Your task to perform on an android device: turn on location history Image 0: 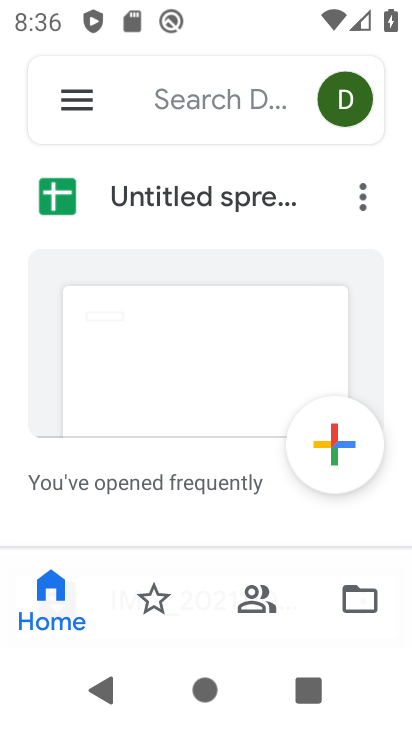
Step 0: press home button
Your task to perform on an android device: turn on location history Image 1: 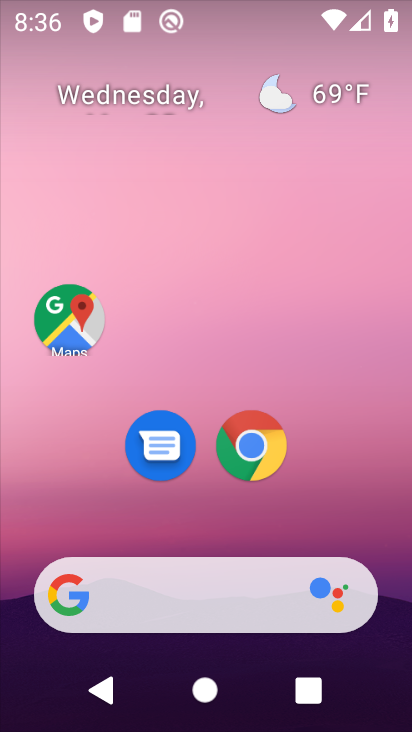
Step 1: drag from (323, 513) to (310, 69)
Your task to perform on an android device: turn on location history Image 2: 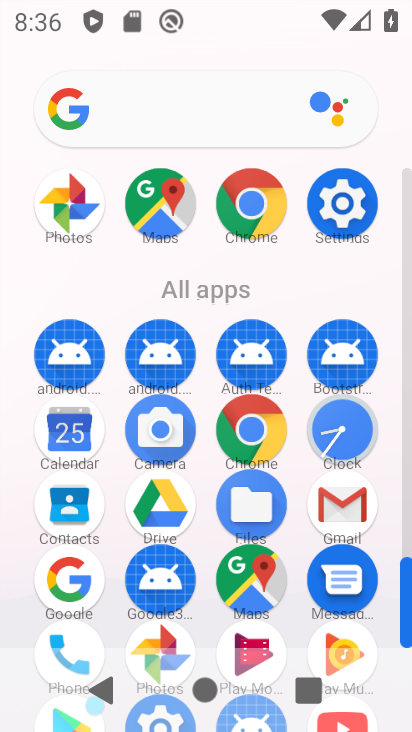
Step 2: drag from (300, 321) to (330, 28)
Your task to perform on an android device: turn on location history Image 3: 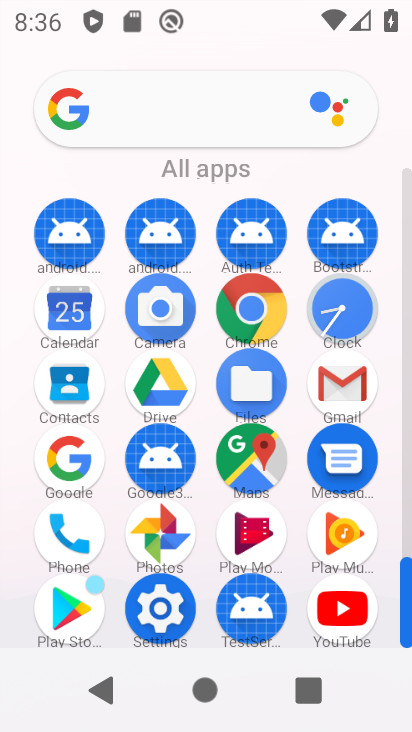
Step 3: click (240, 458)
Your task to perform on an android device: turn on location history Image 4: 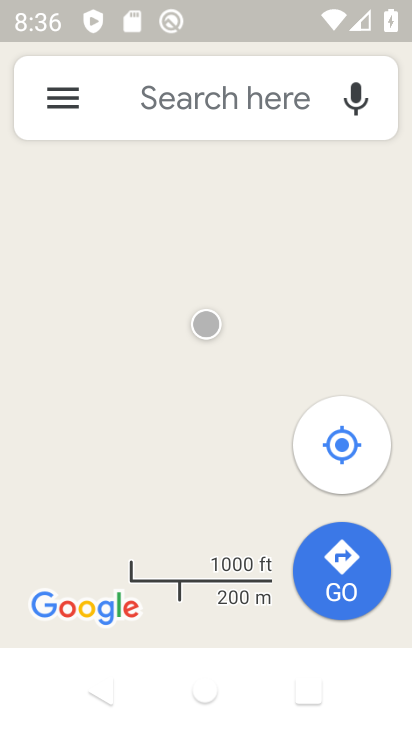
Step 4: click (59, 105)
Your task to perform on an android device: turn on location history Image 5: 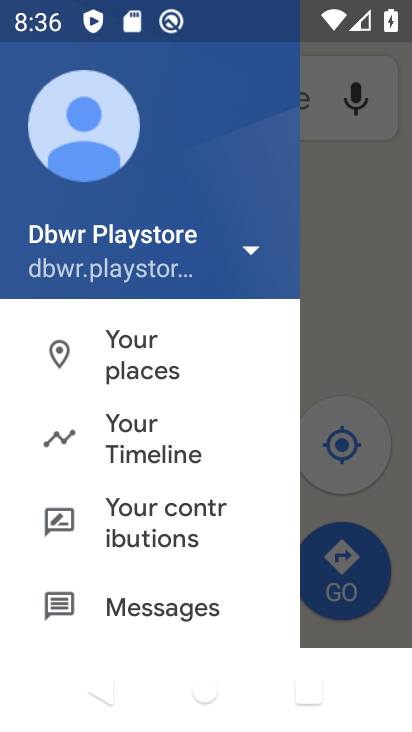
Step 5: click (154, 432)
Your task to perform on an android device: turn on location history Image 6: 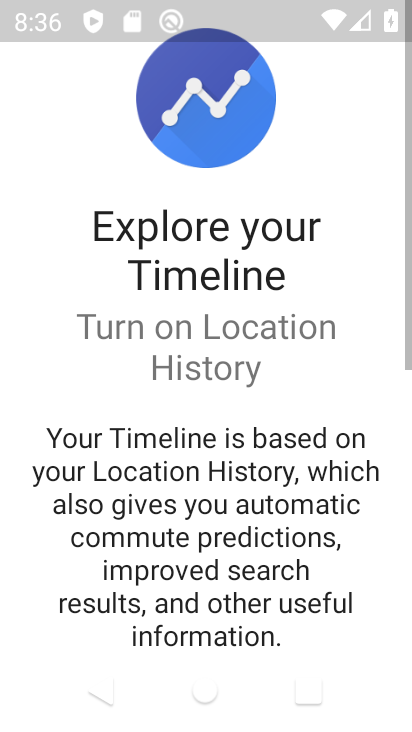
Step 6: drag from (304, 546) to (305, 257)
Your task to perform on an android device: turn on location history Image 7: 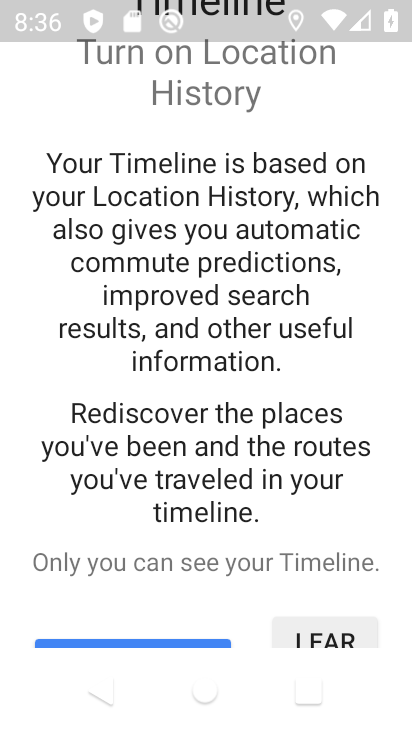
Step 7: drag from (265, 526) to (263, 238)
Your task to perform on an android device: turn on location history Image 8: 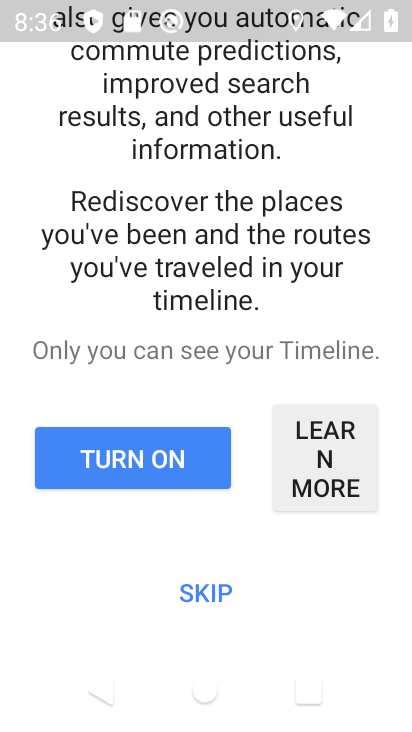
Step 8: click (113, 462)
Your task to perform on an android device: turn on location history Image 9: 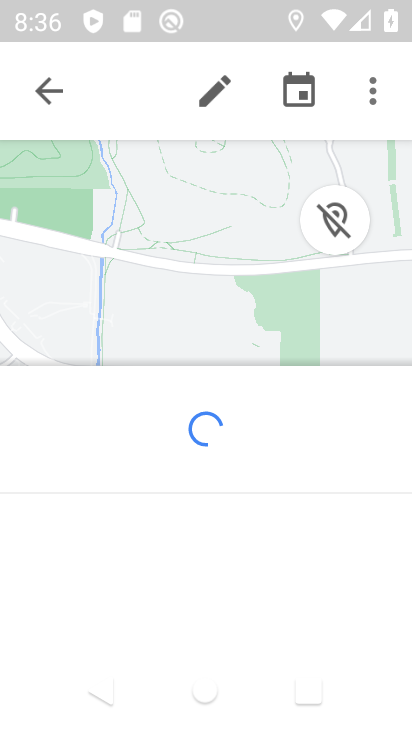
Step 9: click (374, 87)
Your task to perform on an android device: turn on location history Image 10: 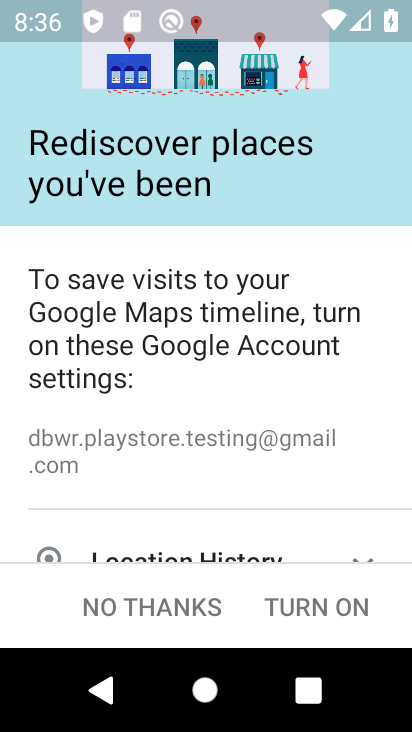
Step 10: click (165, 603)
Your task to perform on an android device: turn on location history Image 11: 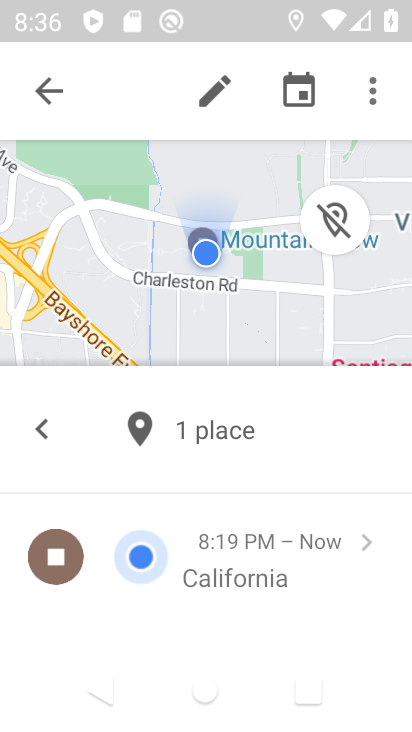
Step 11: click (367, 94)
Your task to perform on an android device: turn on location history Image 12: 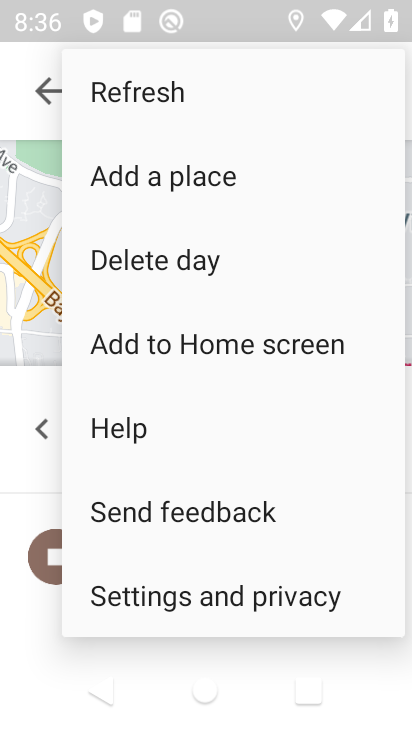
Step 12: click (214, 593)
Your task to perform on an android device: turn on location history Image 13: 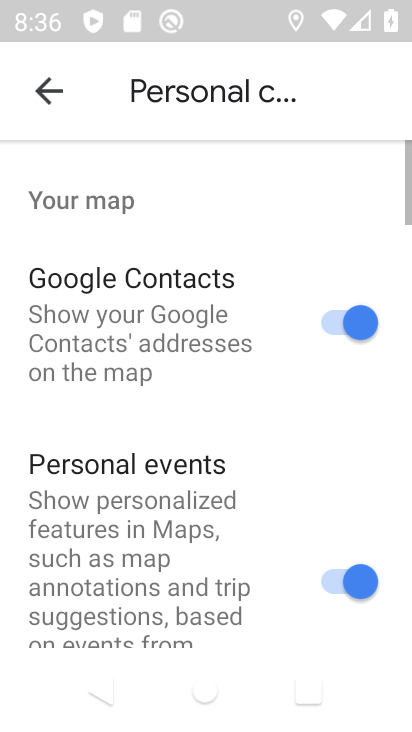
Step 13: drag from (214, 593) to (262, 300)
Your task to perform on an android device: turn on location history Image 14: 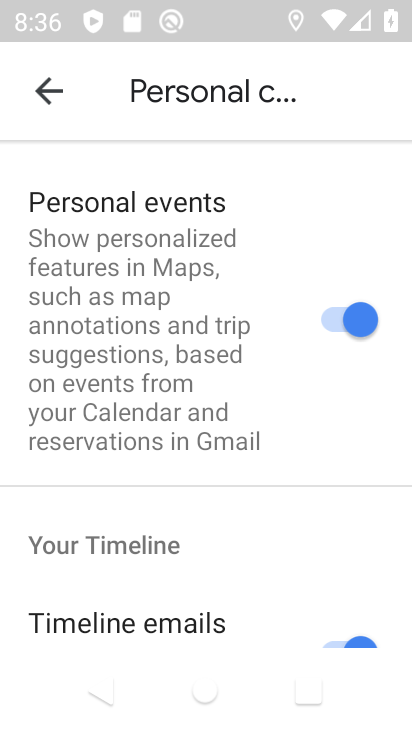
Step 14: drag from (232, 583) to (272, 230)
Your task to perform on an android device: turn on location history Image 15: 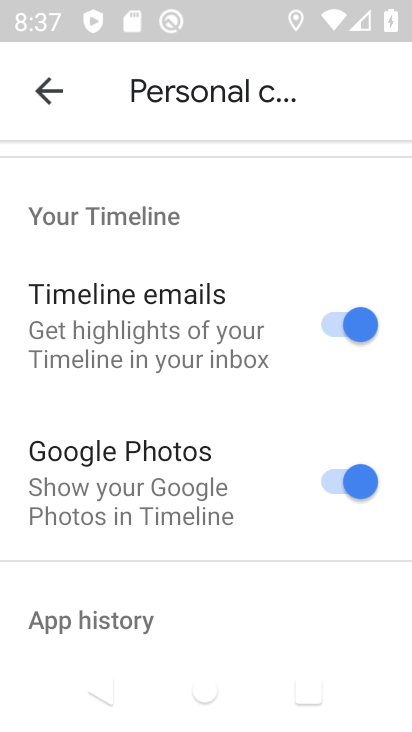
Step 15: drag from (254, 606) to (290, 193)
Your task to perform on an android device: turn on location history Image 16: 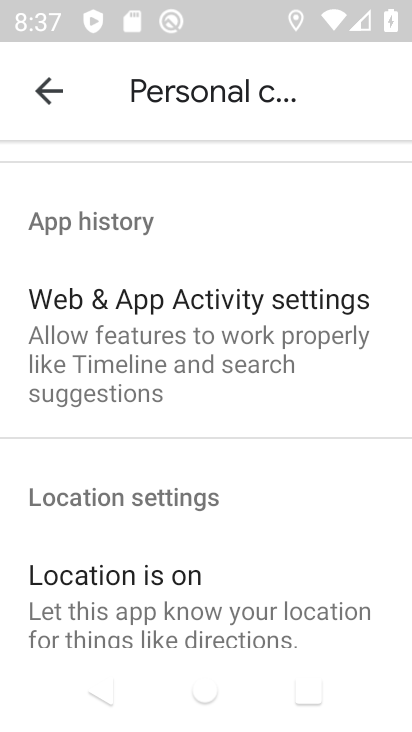
Step 16: drag from (311, 387) to (321, 175)
Your task to perform on an android device: turn on location history Image 17: 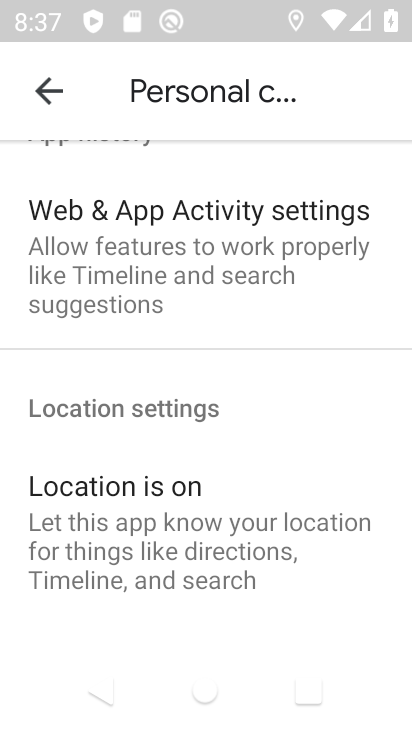
Step 17: drag from (295, 582) to (297, 214)
Your task to perform on an android device: turn on location history Image 18: 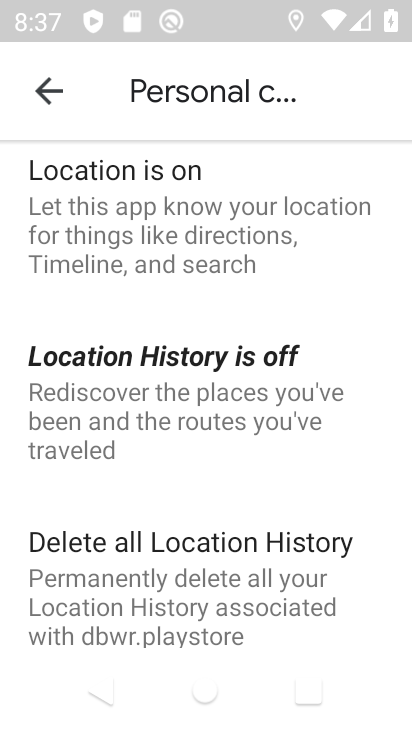
Step 18: click (184, 374)
Your task to perform on an android device: turn on location history Image 19: 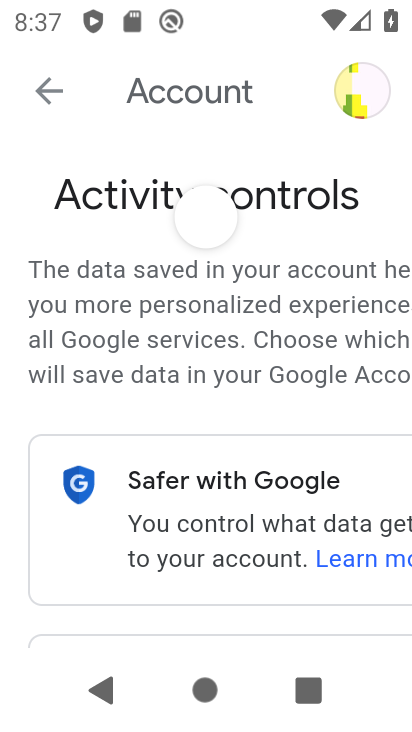
Step 19: drag from (190, 547) to (245, 175)
Your task to perform on an android device: turn on location history Image 20: 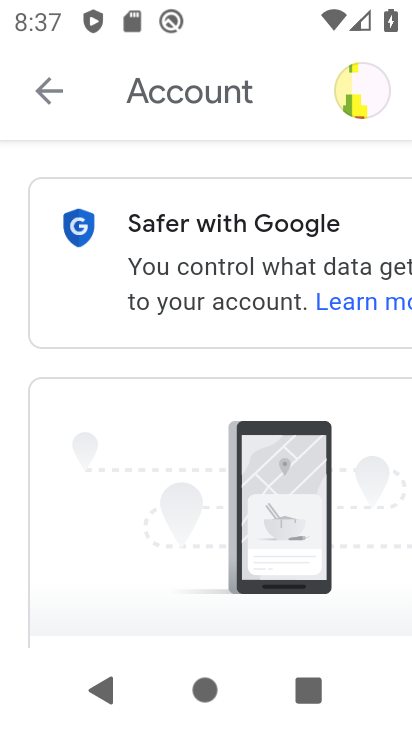
Step 20: drag from (177, 519) to (234, 124)
Your task to perform on an android device: turn on location history Image 21: 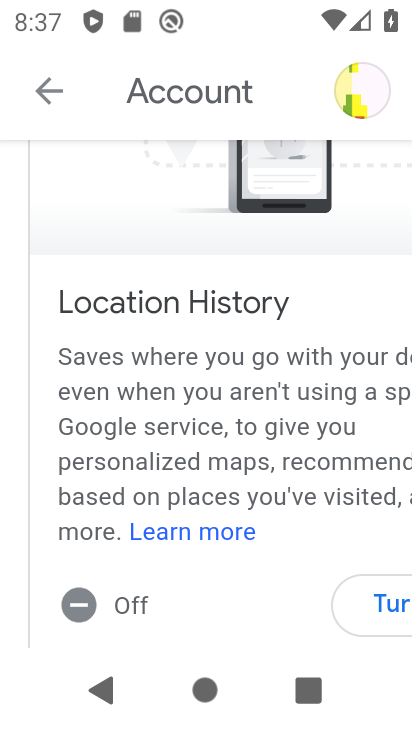
Step 21: drag from (343, 486) to (126, 455)
Your task to perform on an android device: turn on location history Image 22: 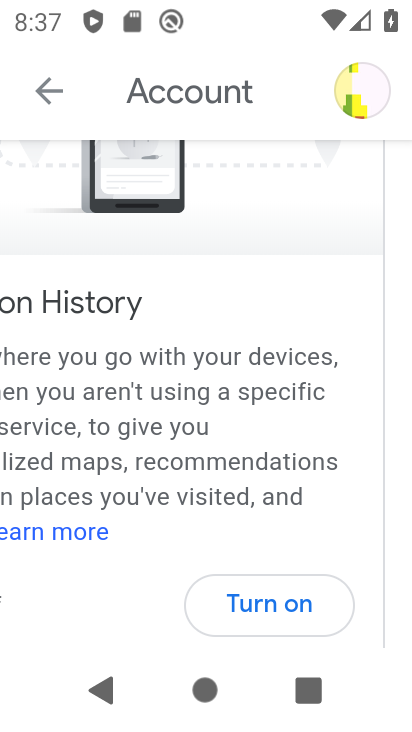
Step 22: click (287, 594)
Your task to perform on an android device: turn on location history Image 23: 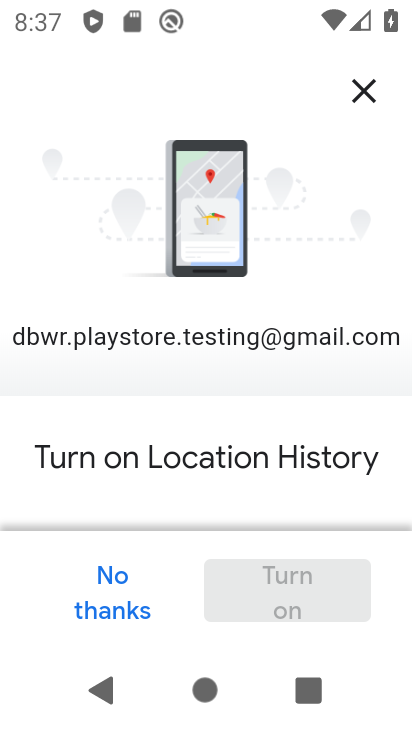
Step 23: drag from (300, 481) to (291, 90)
Your task to perform on an android device: turn on location history Image 24: 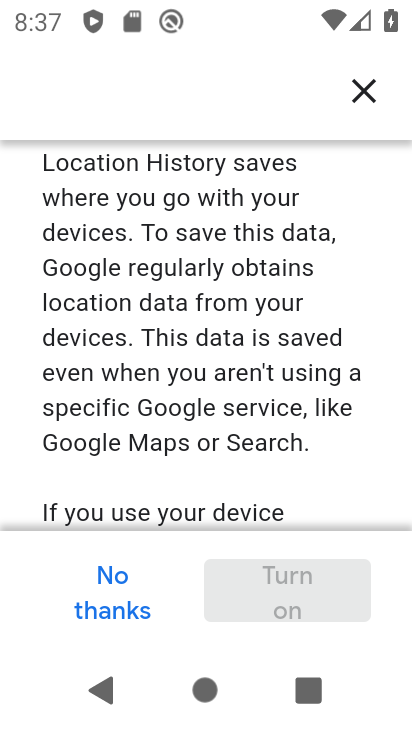
Step 24: drag from (210, 462) to (268, 155)
Your task to perform on an android device: turn on location history Image 25: 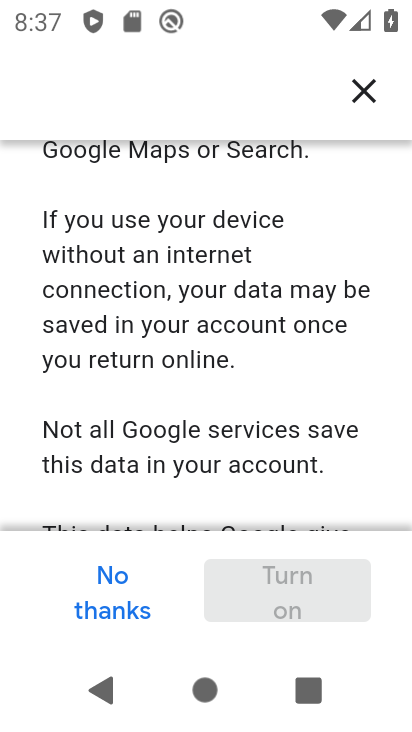
Step 25: drag from (216, 491) to (245, 154)
Your task to perform on an android device: turn on location history Image 26: 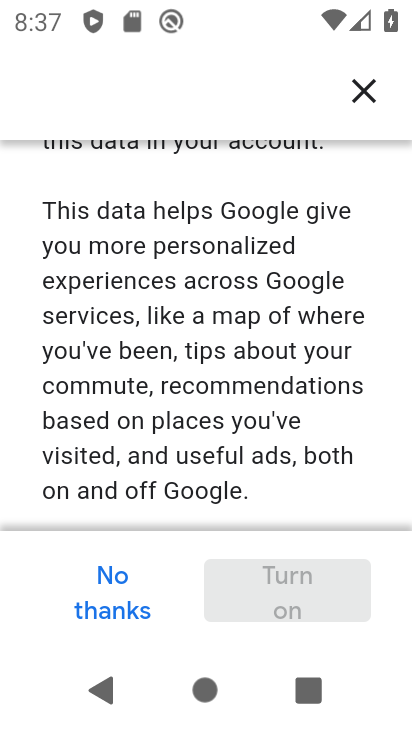
Step 26: drag from (138, 447) to (191, 161)
Your task to perform on an android device: turn on location history Image 27: 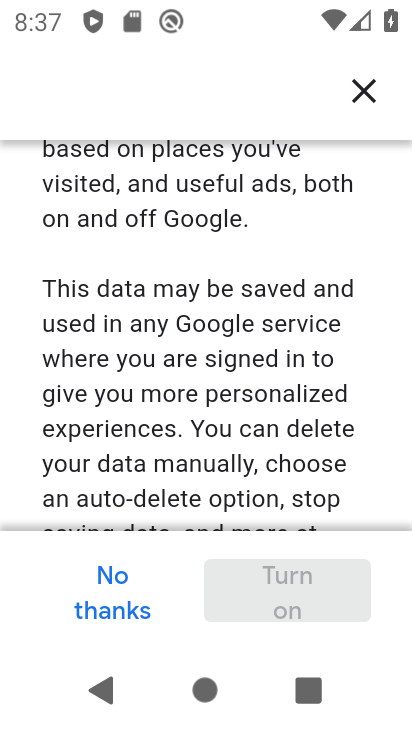
Step 27: drag from (144, 465) to (205, 129)
Your task to perform on an android device: turn on location history Image 28: 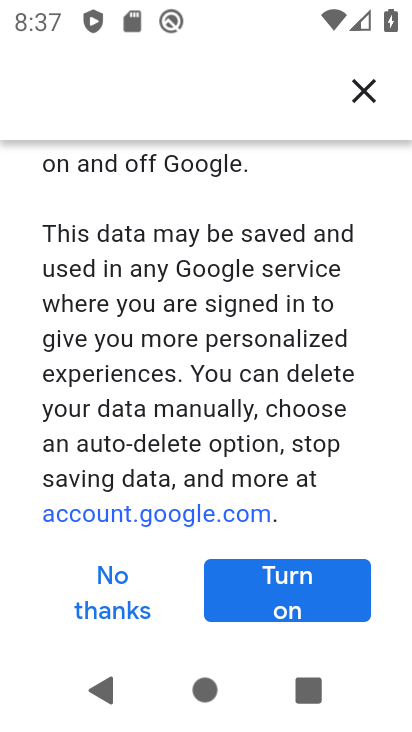
Step 28: click (285, 594)
Your task to perform on an android device: turn on location history Image 29: 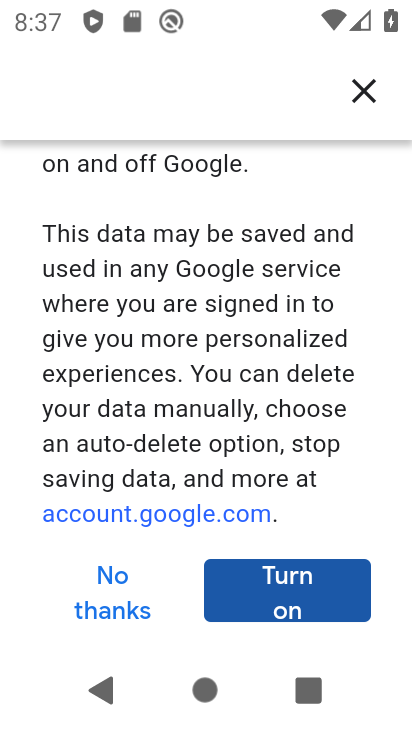
Step 29: click (285, 594)
Your task to perform on an android device: turn on location history Image 30: 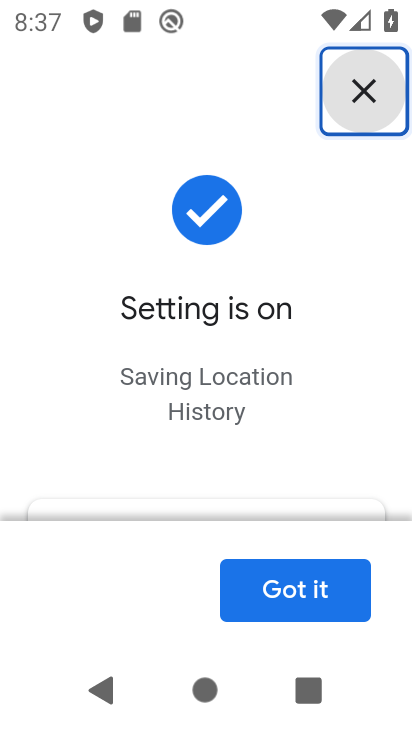
Step 30: click (309, 597)
Your task to perform on an android device: turn on location history Image 31: 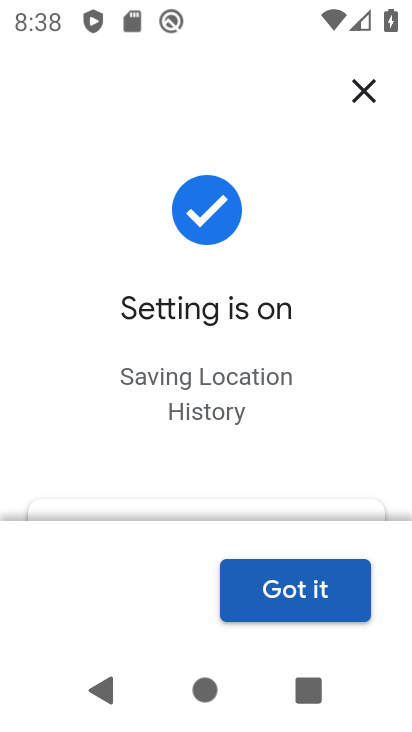
Step 31: click (302, 583)
Your task to perform on an android device: turn on location history Image 32: 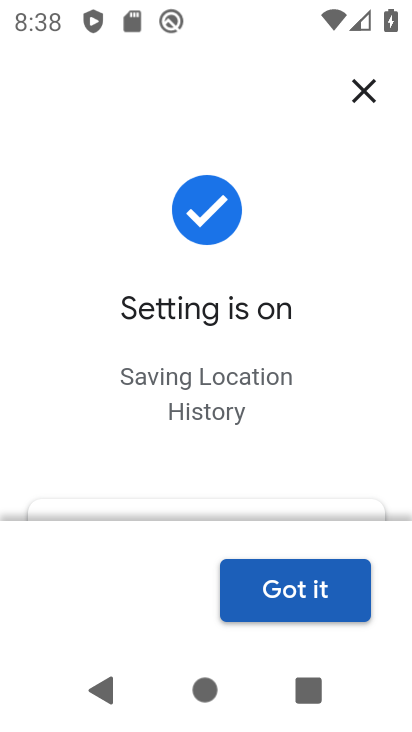
Step 32: click (301, 586)
Your task to perform on an android device: turn on location history Image 33: 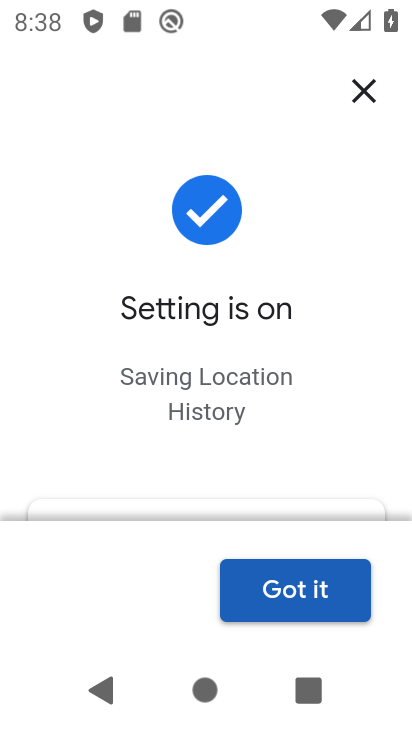
Step 33: click (301, 586)
Your task to perform on an android device: turn on location history Image 34: 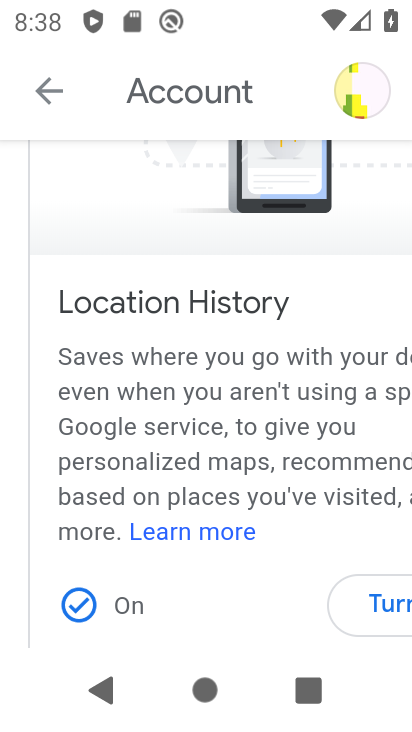
Step 34: task complete